Your task to perform on an android device: uninstall "Airtel Thanks" Image 0: 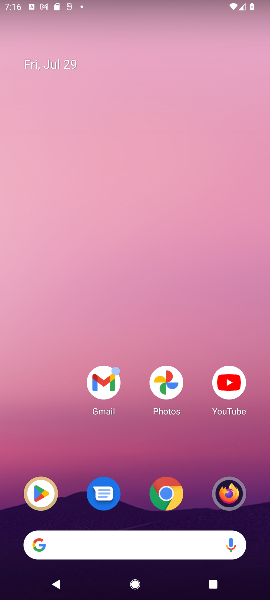
Step 0: click (39, 494)
Your task to perform on an android device: uninstall "Airtel Thanks" Image 1: 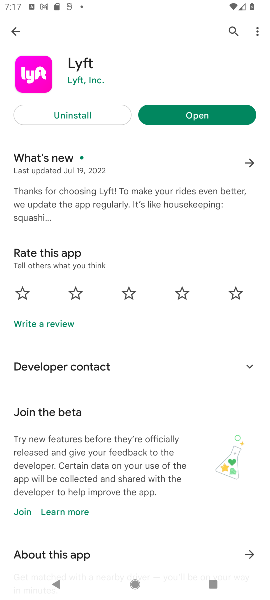
Step 1: click (228, 27)
Your task to perform on an android device: uninstall "Airtel Thanks" Image 2: 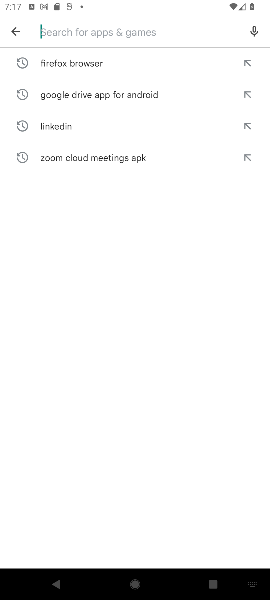
Step 2: type "Airtel Thanks"
Your task to perform on an android device: uninstall "Airtel Thanks" Image 3: 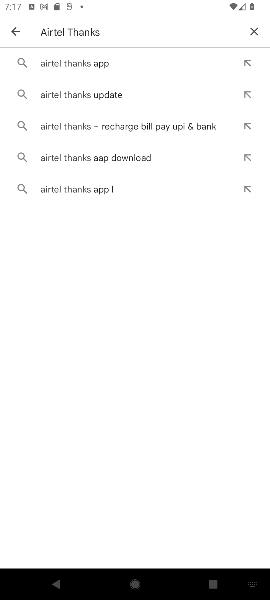
Step 3: click (62, 63)
Your task to perform on an android device: uninstall "Airtel Thanks" Image 4: 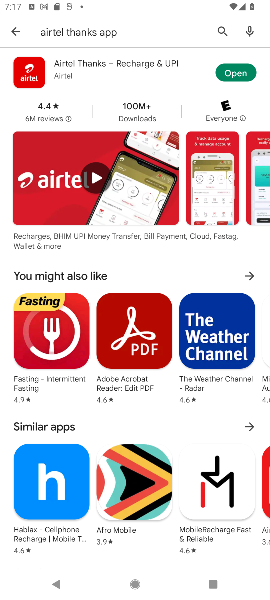
Step 4: click (109, 60)
Your task to perform on an android device: uninstall "Airtel Thanks" Image 5: 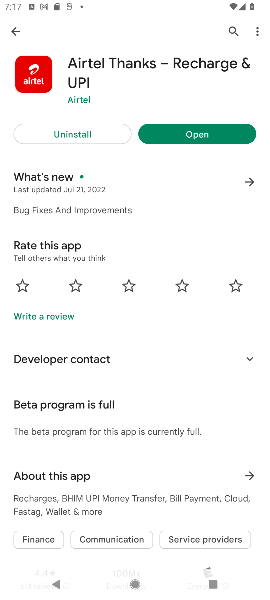
Step 5: click (73, 132)
Your task to perform on an android device: uninstall "Airtel Thanks" Image 6: 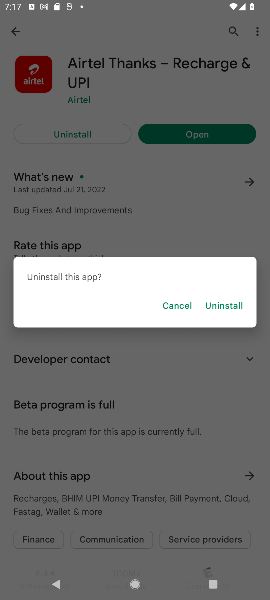
Step 6: click (231, 306)
Your task to perform on an android device: uninstall "Airtel Thanks" Image 7: 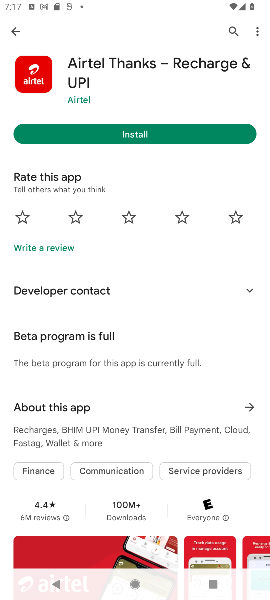
Step 7: task complete